Your task to perform on an android device: Go to sound settings Image 0: 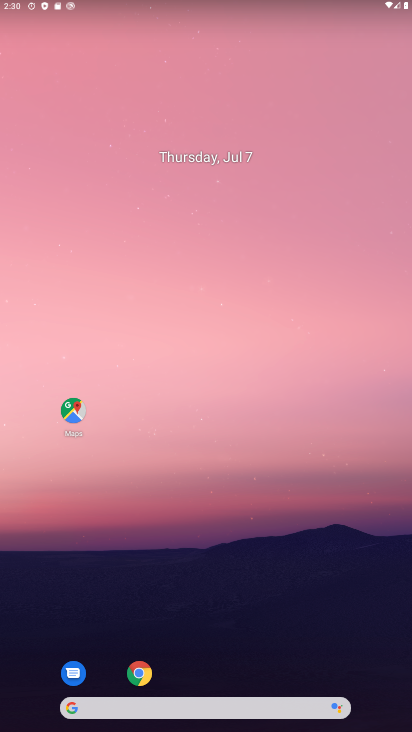
Step 0: drag from (234, 688) to (234, 125)
Your task to perform on an android device: Go to sound settings Image 1: 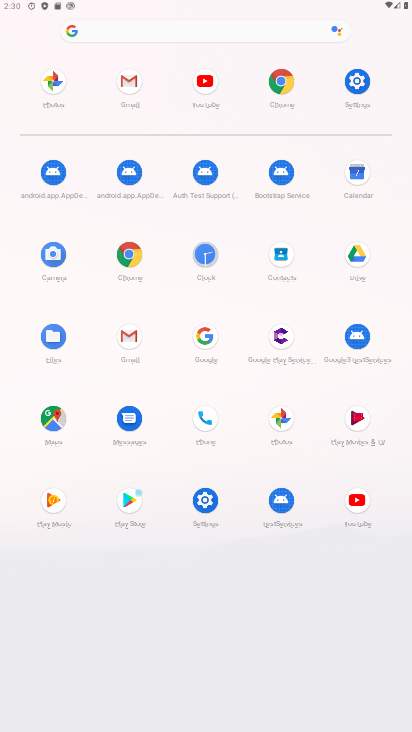
Step 1: click (196, 514)
Your task to perform on an android device: Go to sound settings Image 2: 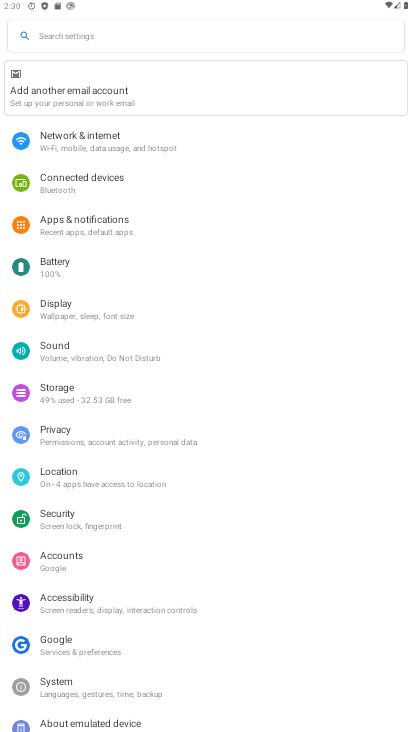
Step 2: click (60, 349)
Your task to perform on an android device: Go to sound settings Image 3: 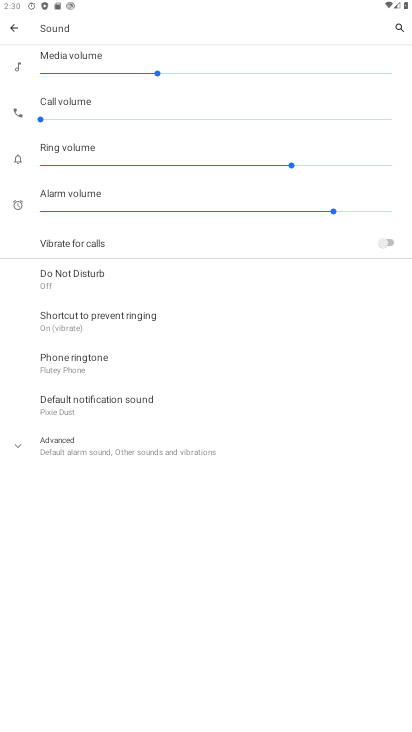
Step 3: click (84, 448)
Your task to perform on an android device: Go to sound settings Image 4: 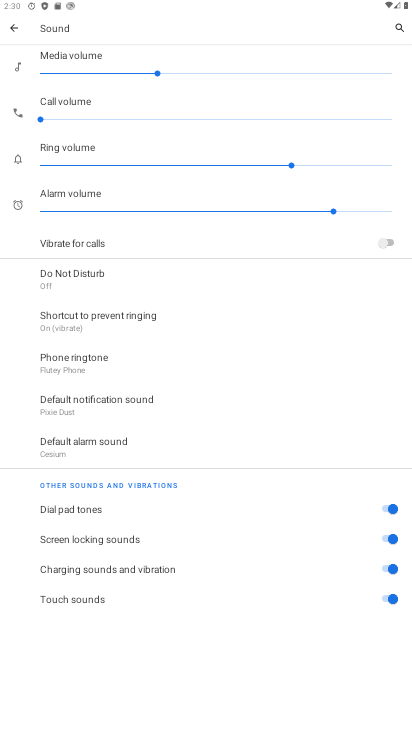
Step 4: click (223, 588)
Your task to perform on an android device: Go to sound settings Image 5: 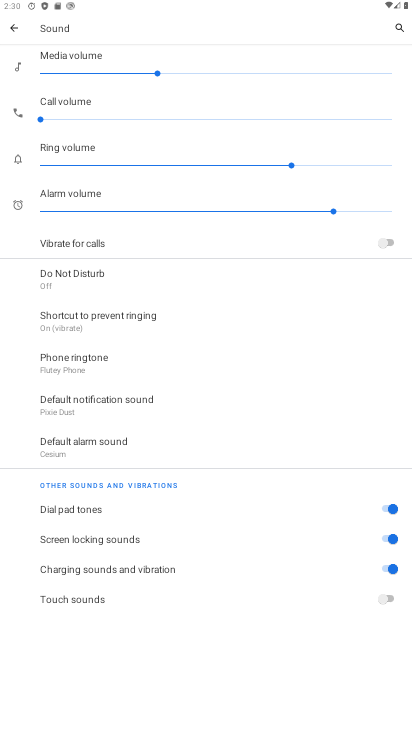
Step 5: task complete